Your task to perform on an android device: turn off location history Image 0: 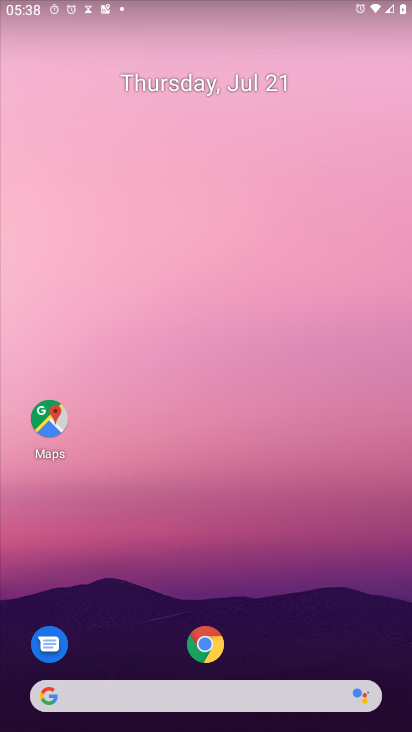
Step 0: press home button
Your task to perform on an android device: turn off location history Image 1: 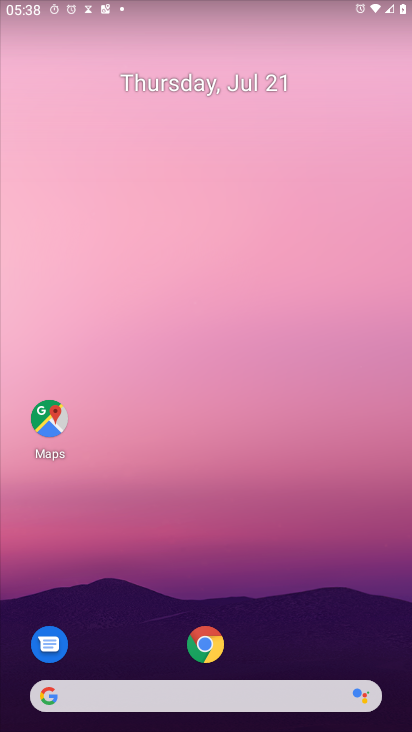
Step 1: drag from (234, 592) to (181, 112)
Your task to perform on an android device: turn off location history Image 2: 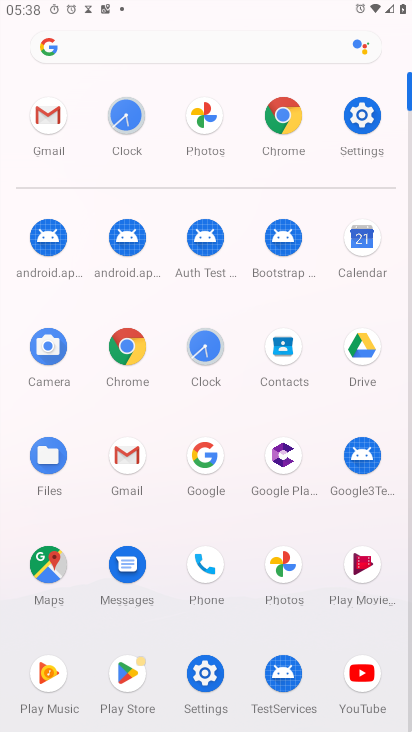
Step 2: click (358, 115)
Your task to perform on an android device: turn off location history Image 3: 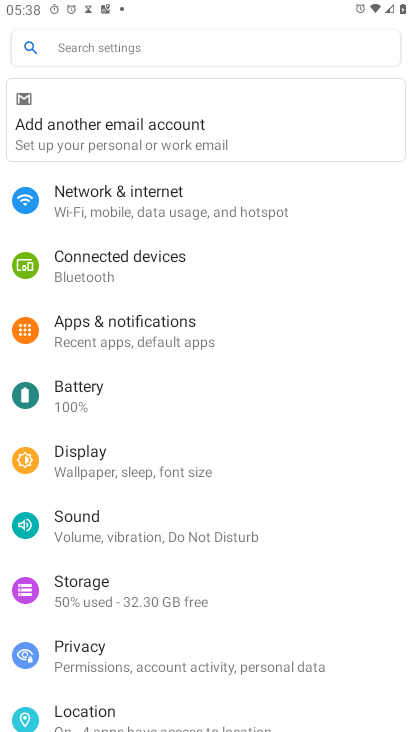
Step 3: click (98, 713)
Your task to perform on an android device: turn off location history Image 4: 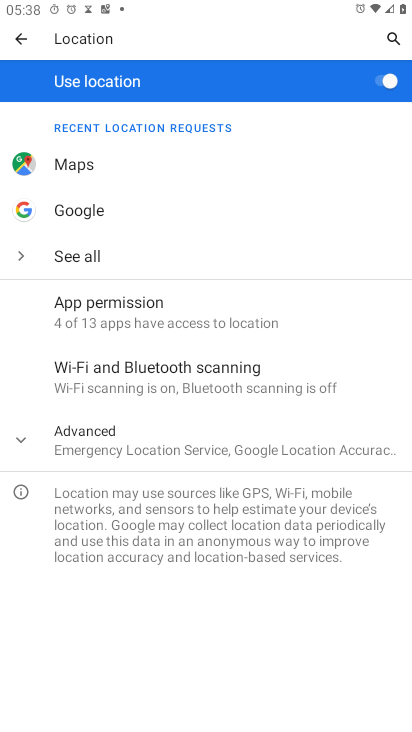
Step 4: click (19, 438)
Your task to perform on an android device: turn off location history Image 5: 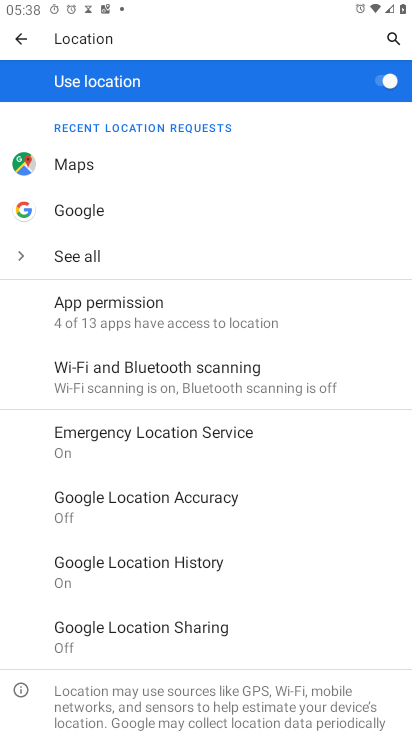
Step 5: click (138, 564)
Your task to perform on an android device: turn off location history Image 6: 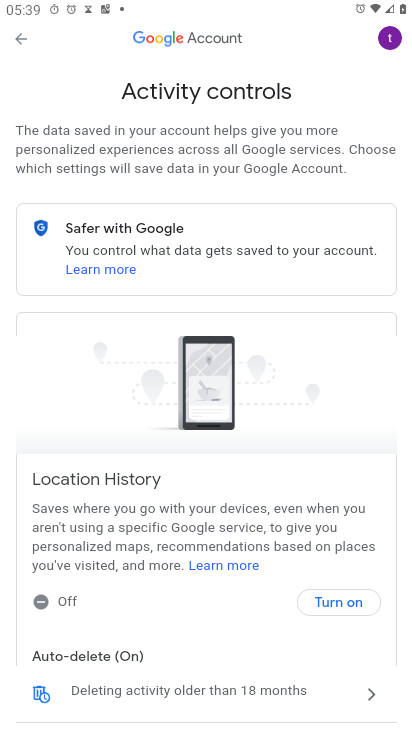
Step 6: click (337, 607)
Your task to perform on an android device: turn off location history Image 7: 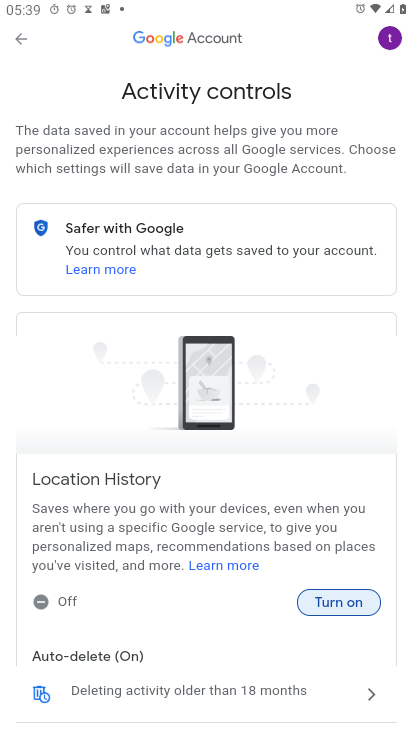
Step 7: click (345, 603)
Your task to perform on an android device: turn off location history Image 8: 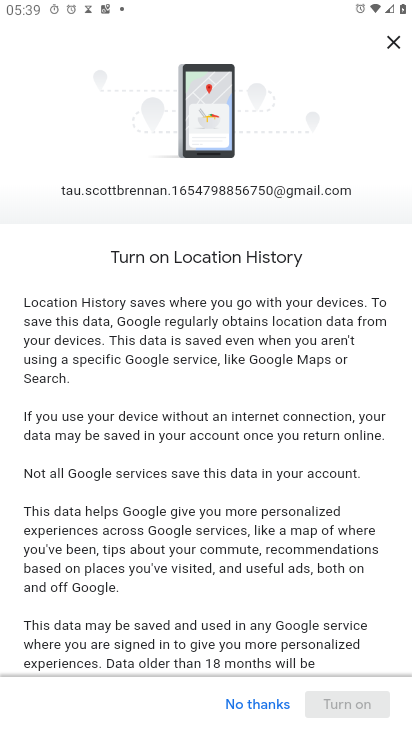
Step 8: drag from (329, 620) to (324, 303)
Your task to perform on an android device: turn off location history Image 9: 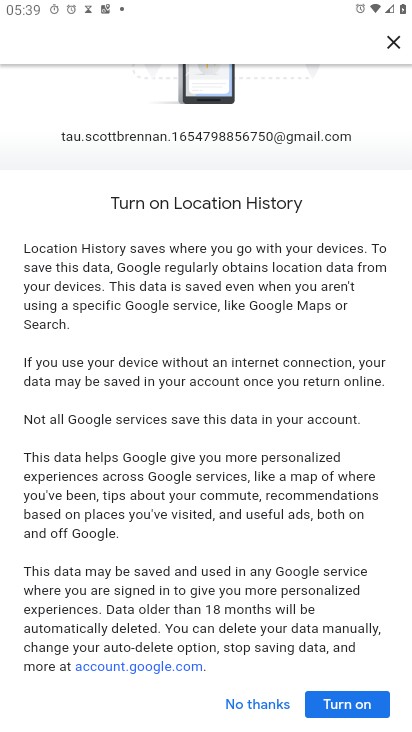
Step 9: click (346, 706)
Your task to perform on an android device: turn off location history Image 10: 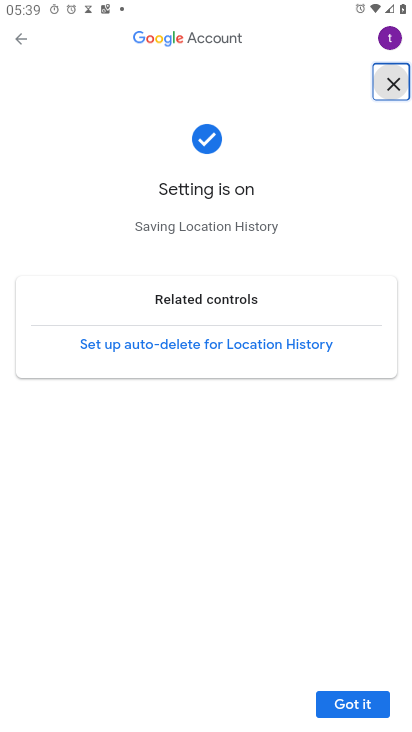
Step 10: click (357, 704)
Your task to perform on an android device: turn off location history Image 11: 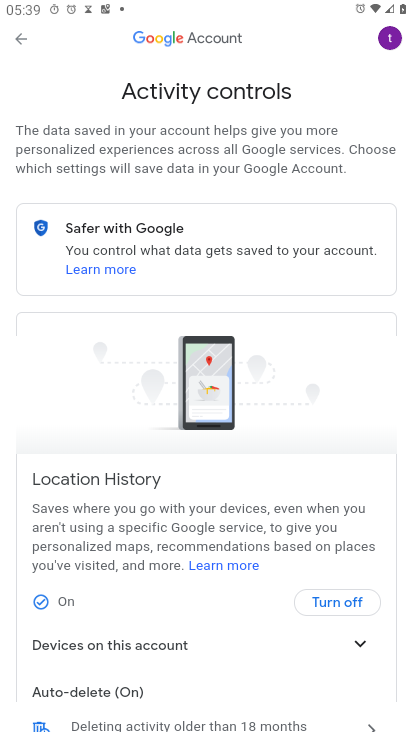
Step 11: task complete